Your task to perform on an android device: make emails show in primary in the gmail app Image 0: 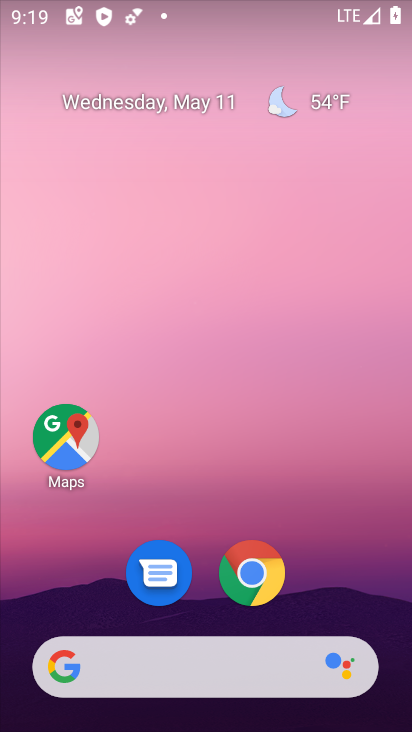
Step 0: drag from (228, 595) to (253, 41)
Your task to perform on an android device: make emails show in primary in the gmail app Image 1: 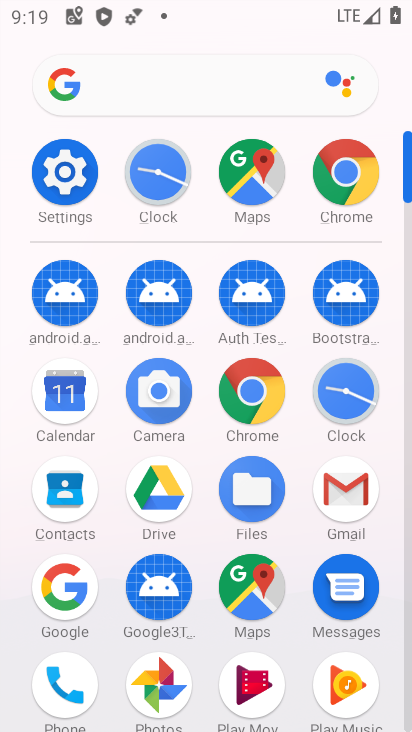
Step 1: click (341, 491)
Your task to perform on an android device: make emails show in primary in the gmail app Image 2: 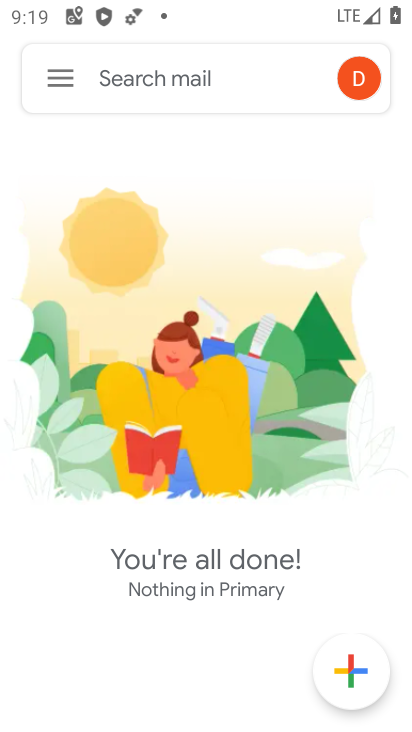
Step 2: click (65, 74)
Your task to perform on an android device: make emails show in primary in the gmail app Image 3: 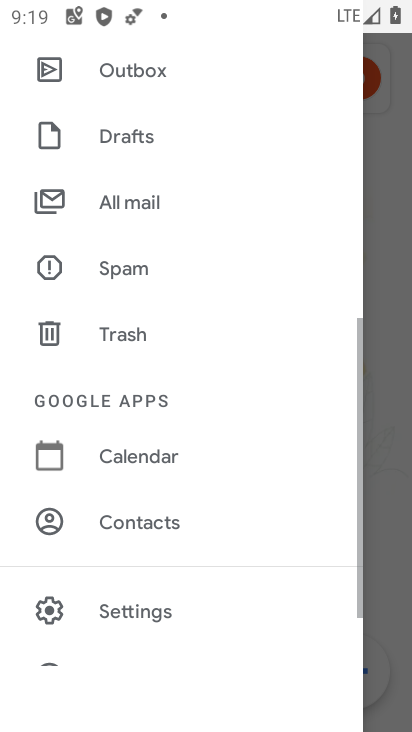
Step 3: click (183, 615)
Your task to perform on an android device: make emails show in primary in the gmail app Image 4: 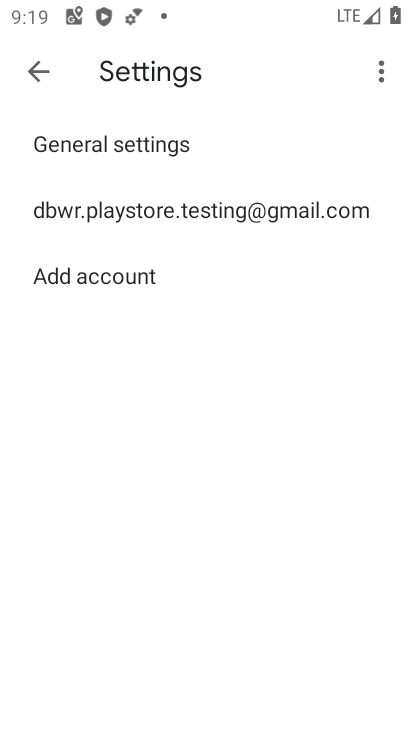
Step 4: click (175, 204)
Your task to perform on an android device: make emails show in primary in the gmail app Image 5: 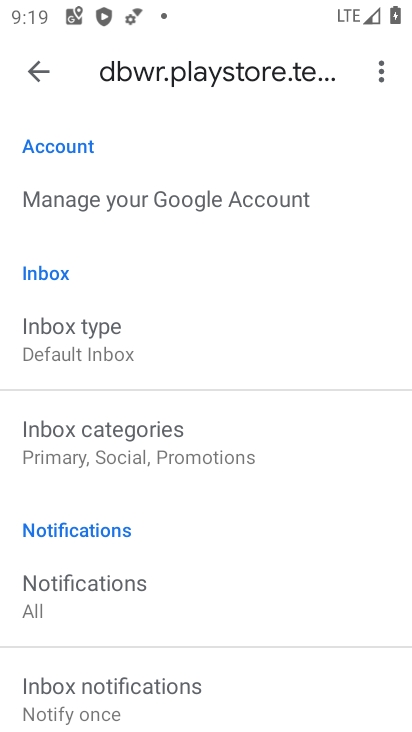
Step 5: task complete